Your task to perform on an android device: check android version Image 0: 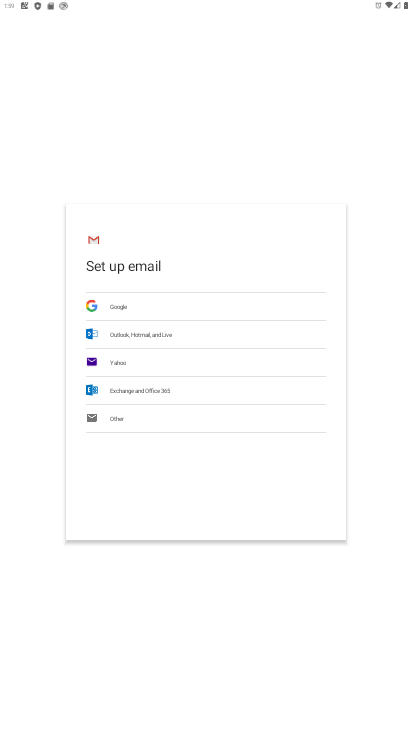
Step 0: press home button
Your task to perform on an android device: check android version Image 1: 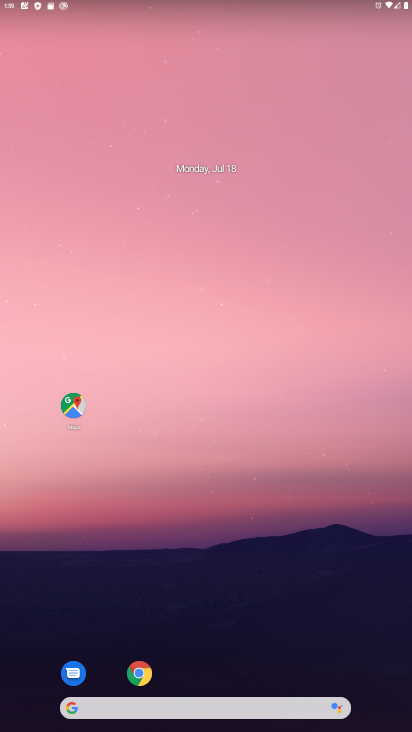
Step 1: drag from (211, 662) to (188, 14)
Your task to perform on an android device: check android version Image 2: 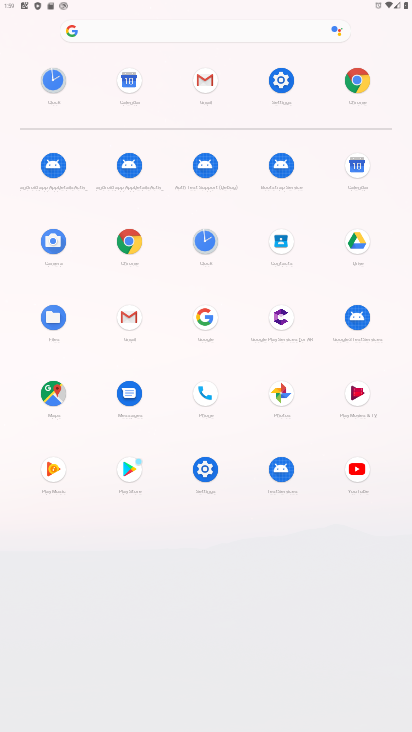
Step 2: click (284, 95)
Your task to perform on an android device: check android version Image 3: 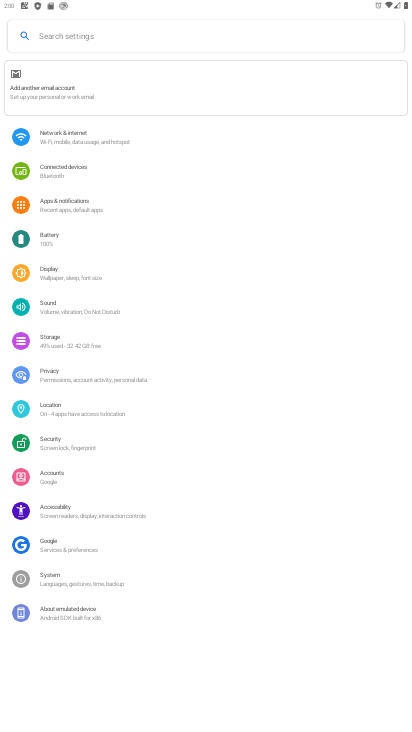
Step 3: click (118, 580)
Your task to perform on an android device: check android version Image 4: 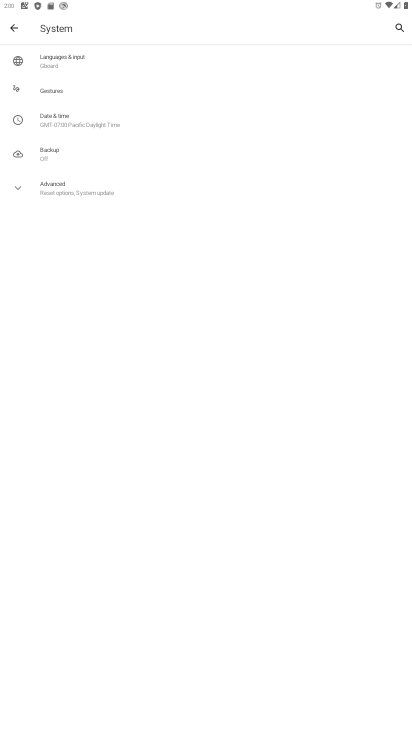
Step 4: task complete